Your task to perform on an android device: star an email in the gmail app Image 0: 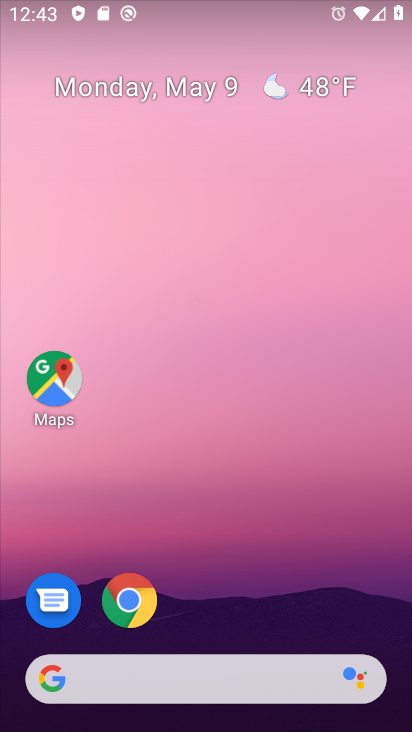
Step 0: drag from (180, 603) to (177, 380)
Your task to perform on an android device: star an email in the gmail app Image 1: 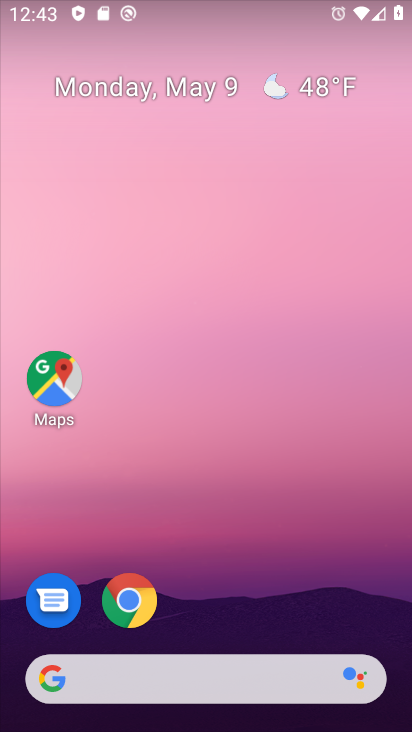
Step 1: drag from (138, 575) to (240, 8)
Your task to perform on an android device: star an email in the gmail app Image 2: 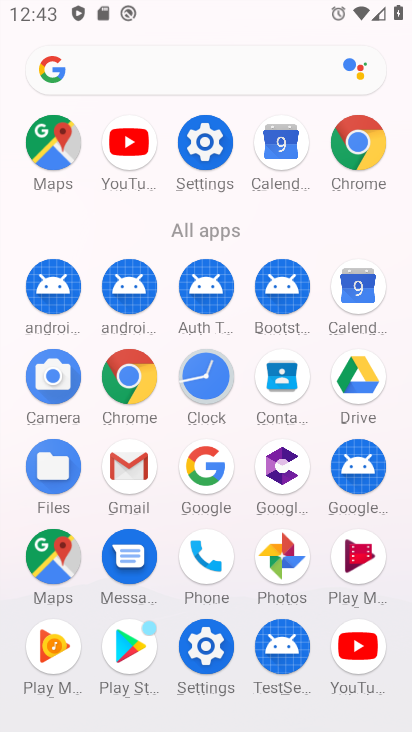
Step 2: click (112, 473)
Your task to perform on an android device: star an email in the gmail app Image 3: 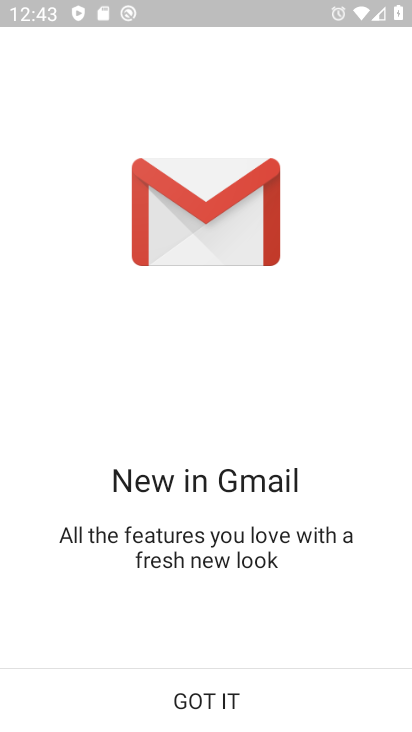
Step 3: click (175, 688)
Your task to perform on an android device: star an email in the gmail app Image 4: 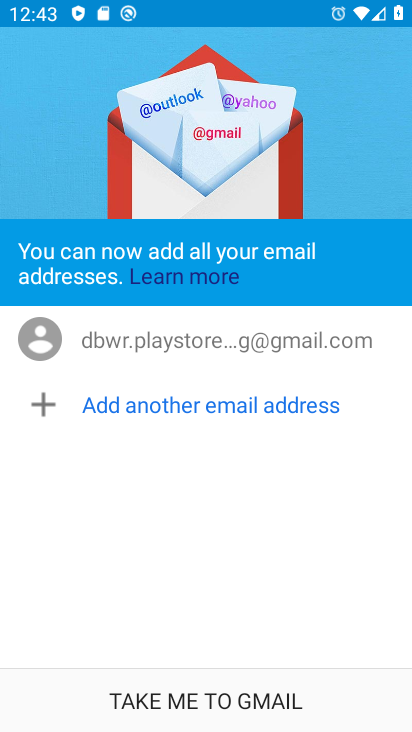
Step 4: task complete